Your task to perform on an android device: toggle improve location accuracy Image 0: 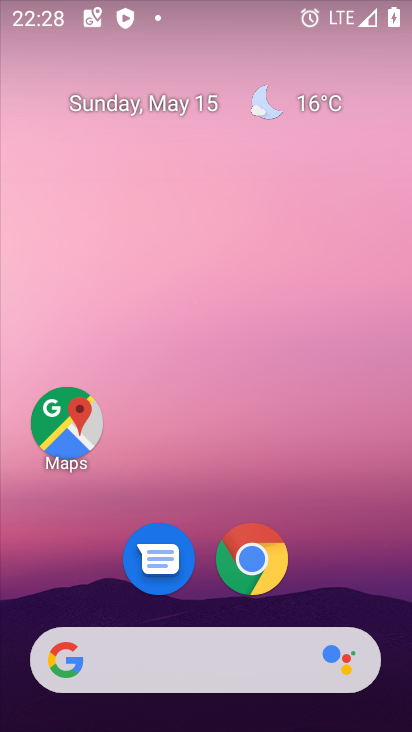
Step 0: press home button
Your task to perform on an android device: toggle improve location accuracy Image 1: 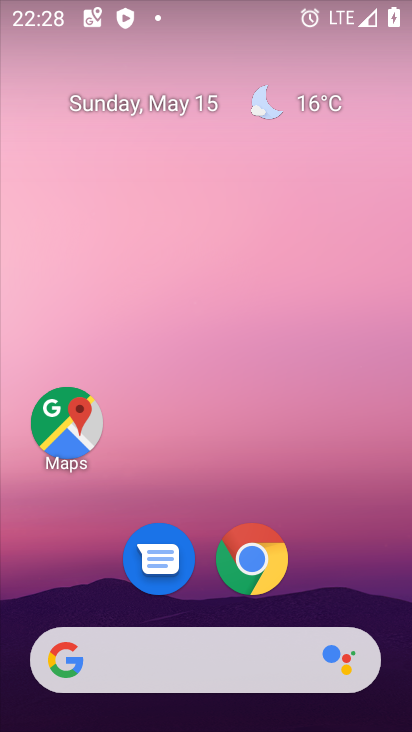
Step 1: drag from (280, 434) to (236, 7)
Your task to perform on an android device: toggle improve location accuracy Image 2: 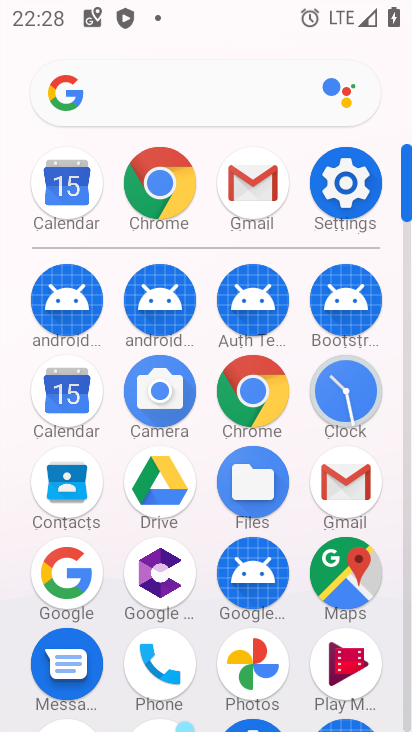
Step 2: click (350, 188)
Your task to perform on an android device: toggle improve location accuracy Image 3: 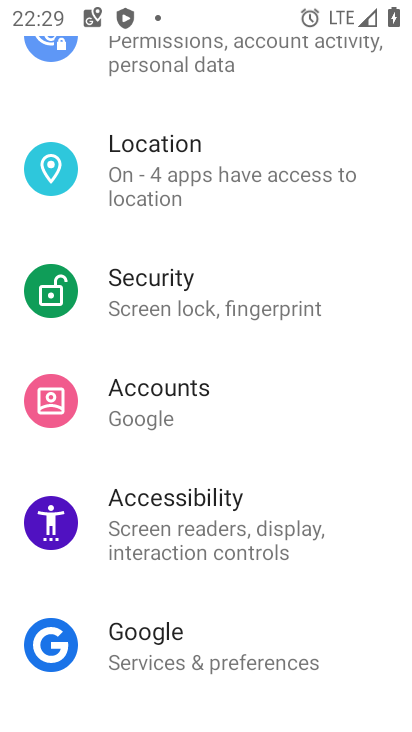
Step 3: drag from (238, 587) to (222, 212)
Your task to perform on an android device: toggle improve location accuracy Image 4: 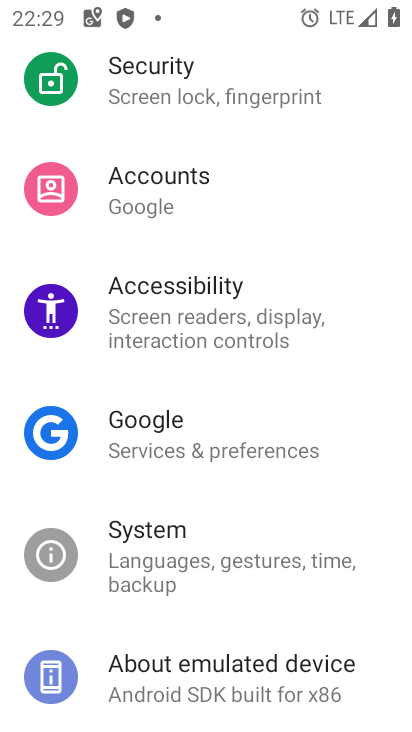
Step 4: drag from (191, 212) to (236, 566)
Your task to perform on an android device: toggle improve location accuracy Image 5: 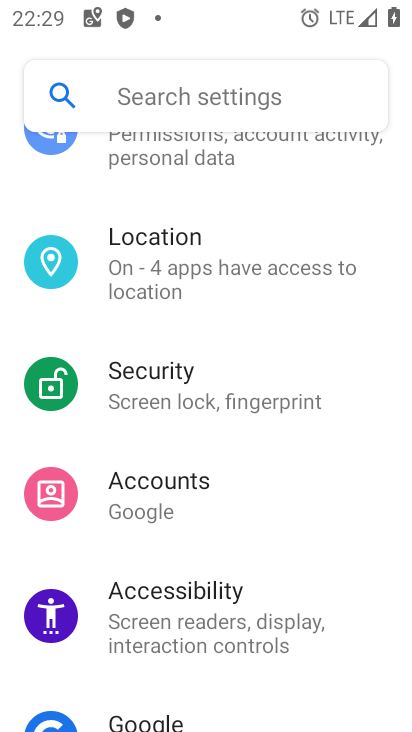
Step 5: click (156, 238)
Your task to perform on an android device: toggle improve location accuracy Image 6: 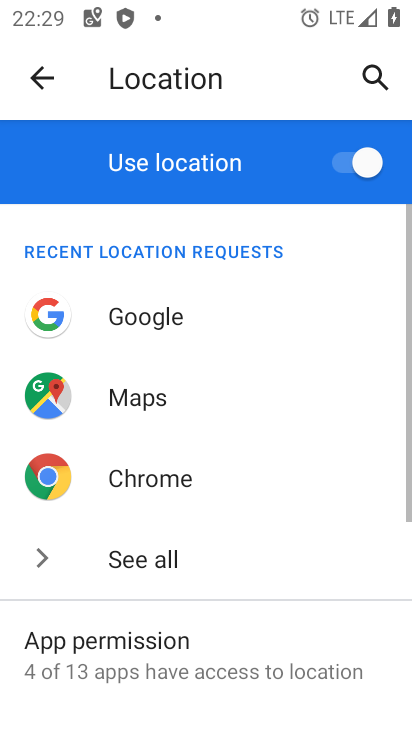
Step 6: drag from (196, 521) to (180, 249)
Your task to perform on an android device: toggle improve location accuracy Image 7: 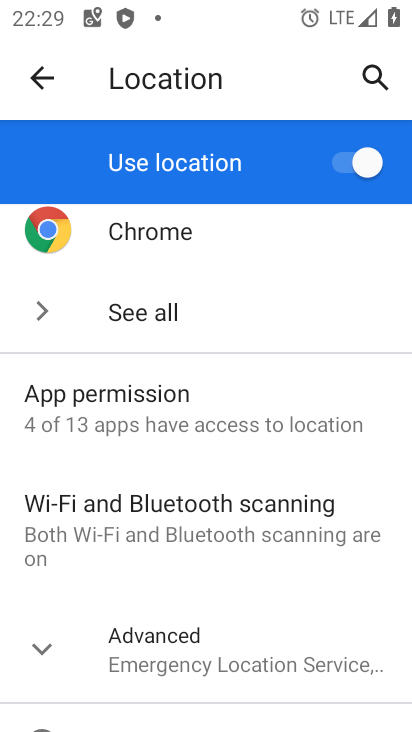
Step 7: drag from (149, 564) to (146, 382)
Your task to perform on an android device: toggle improve location accuracy Image 8: 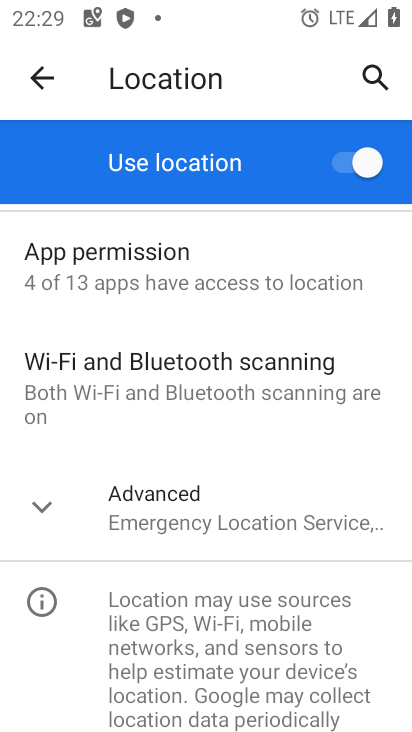
Step 8: click (45, 510)
Your task to perform on an android device: toggle improve location accuracy Image 9: 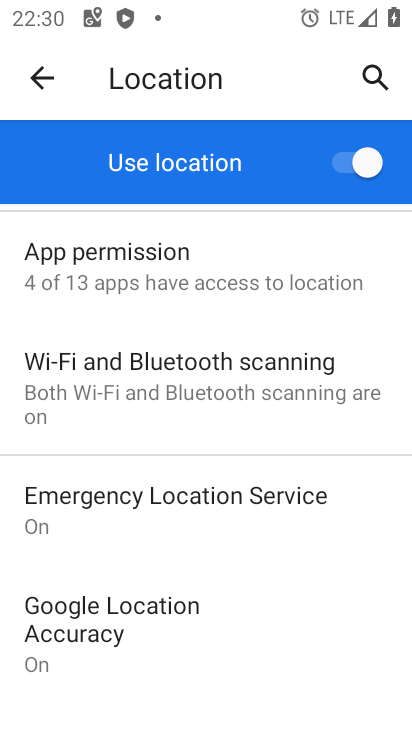
Step 9: drag from (246, 572) to (224, 376)
Your task to perform on an android device: toggle improve location accuracy Image 10: 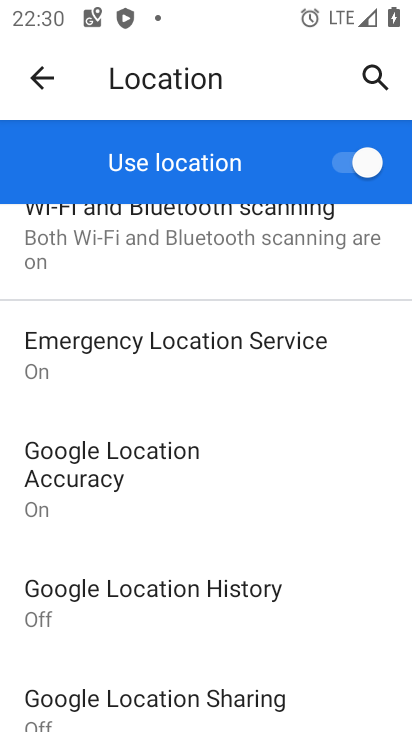
Step 10: click (62, 459)
Your task to perform on an android device: toggle improve location accuracy Image 11: 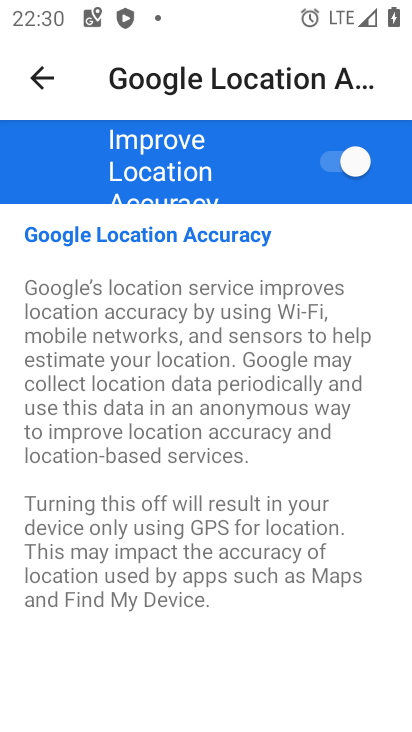
Step 11: click (346, 167)
Your task to perform on an android device: toggle improve location accuracy Image 12: 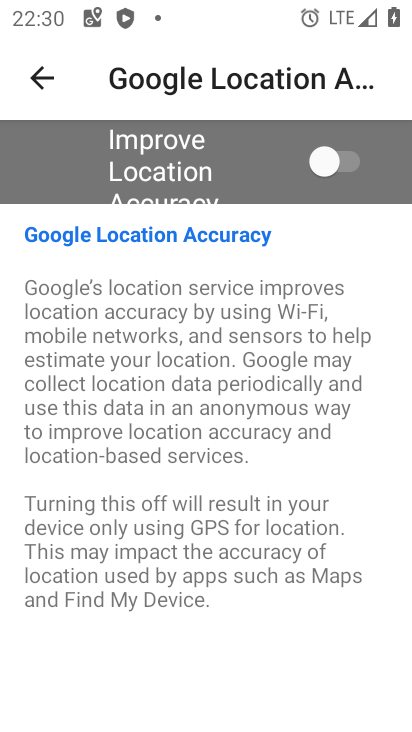
Step 12: task complete